Your task to perform on an android device: snooze an email in the gmail app Image 0: 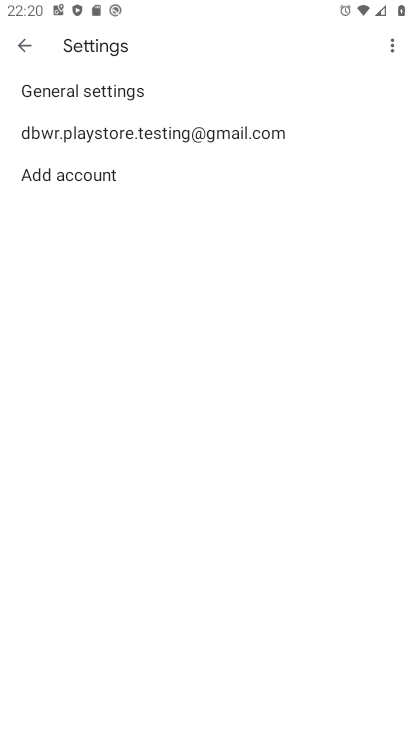
Step 0: press home button
Your task to perform on an android device: snooze an email in the gmail app Image 1: 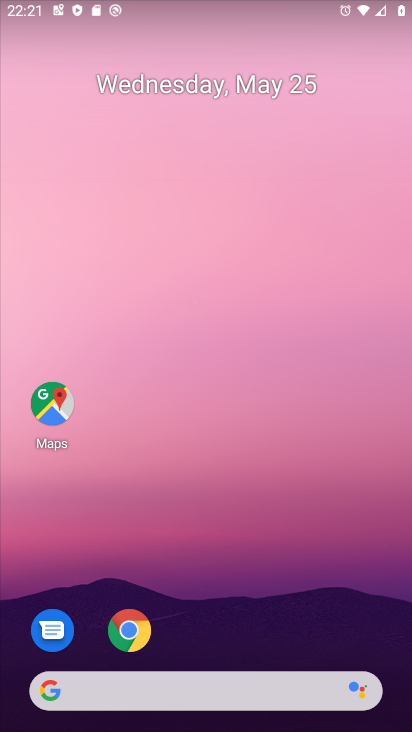
Step 1: drag from (231, 628) to (253, 234)
Your task to perform on an android device: snooze an email in the gmail app Image 2: 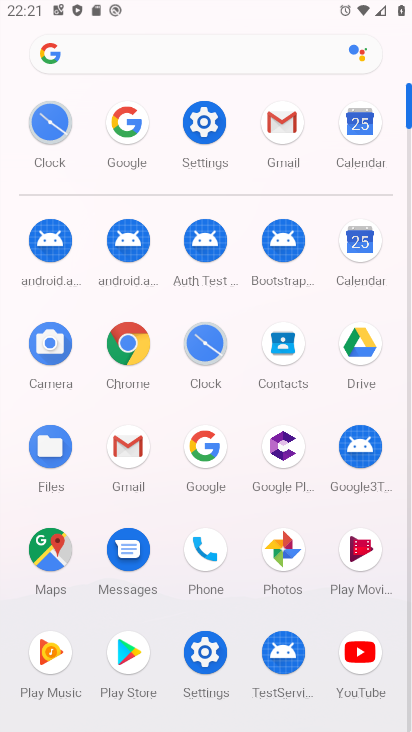
Step 2: click (283, 127)
Your task to perform on an android device: snooze an email in the gmail app Image 3: 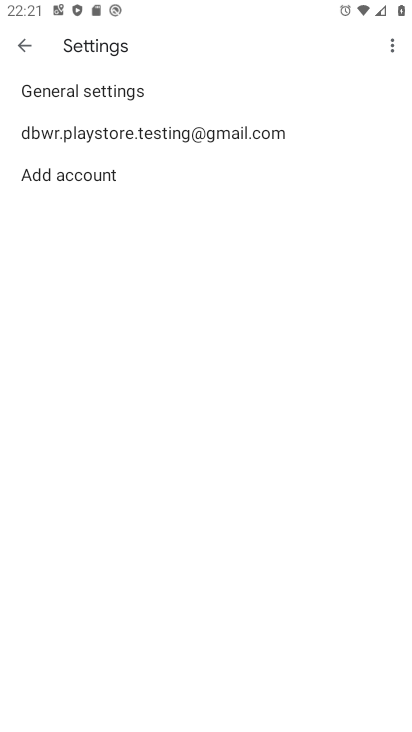
Step 3: click (27, 49)
Your task to perform on an android device: snooze an email in the gmail app Image 4: 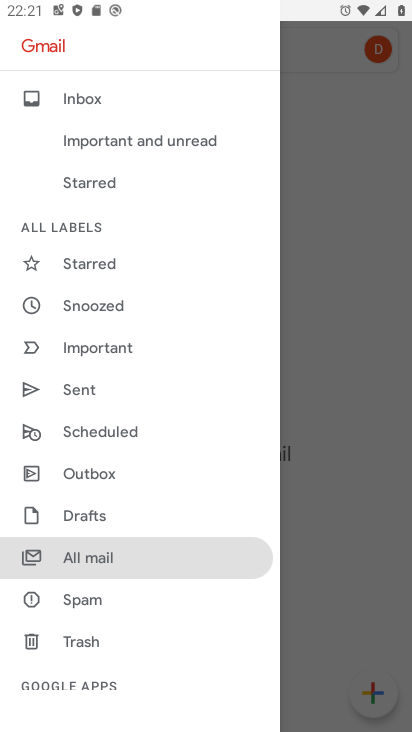
Step 4: click (159, 570)
Your task to perform on an android device: snooze an email in the gmail app Image 5: 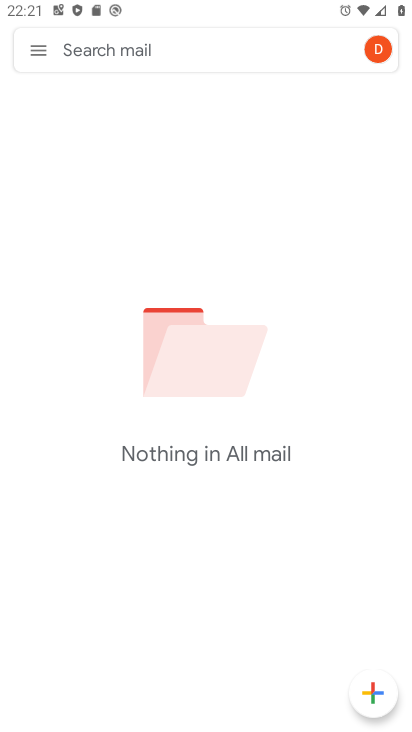
Step 5: task complete